Your task to perform on an android device: What is the news today? Image 0: 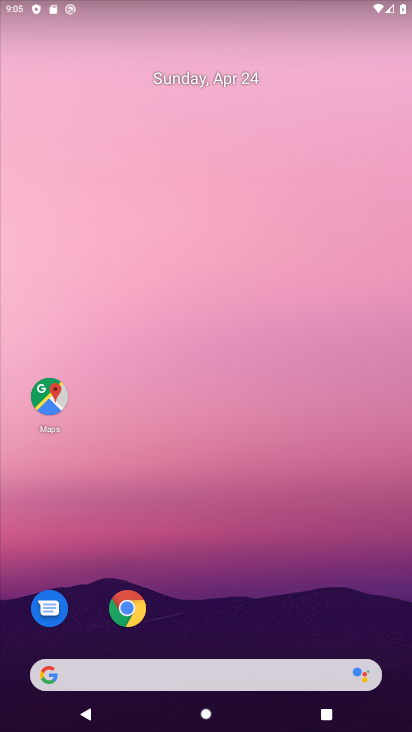
Step 0: drag from (221, 688) to (190, 117)
Your task to perform on an android device: What is the news today? Image 1: 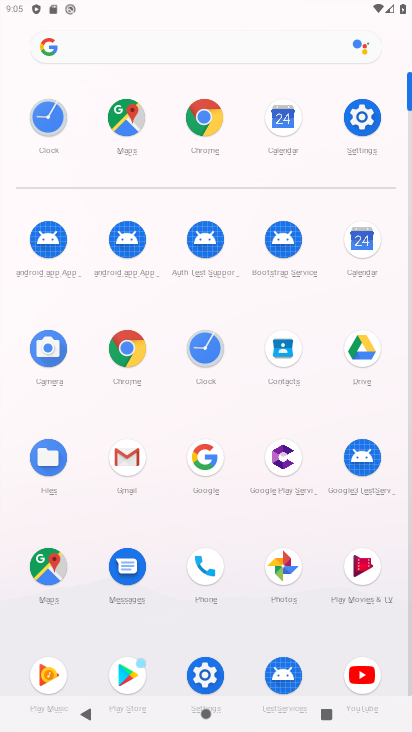
Step 1: click (163, 45)
Your task to perform on an android device: What is the news today? Image 2: 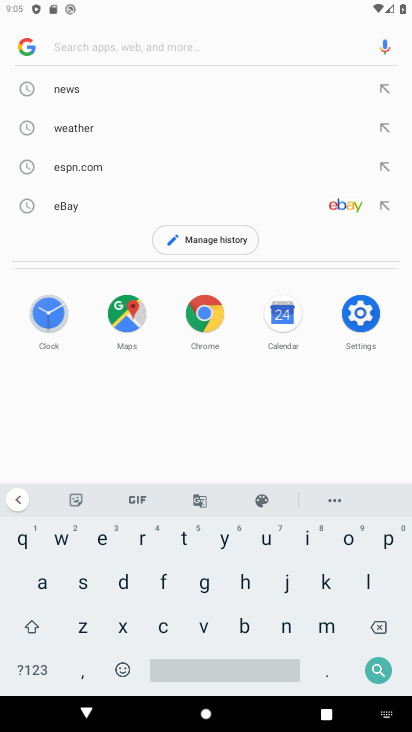
Step 2: click (122, 85)
Your task to perform on an android device: What is the news today? Image 3: 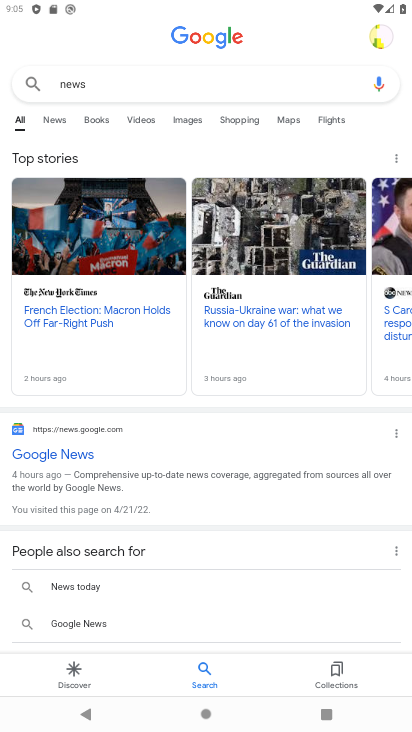
Step 3: task complete